Your task to perform on an android device: change keyboard looks Image 0: 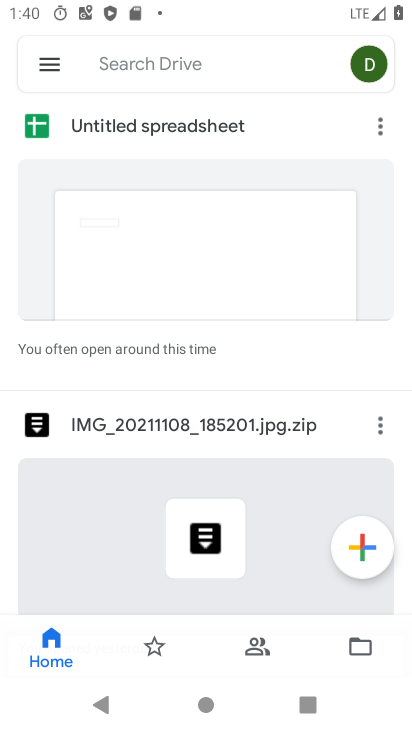
Step 0: press home button
Your task to perform on an android device: change keyboard looks Image 1: 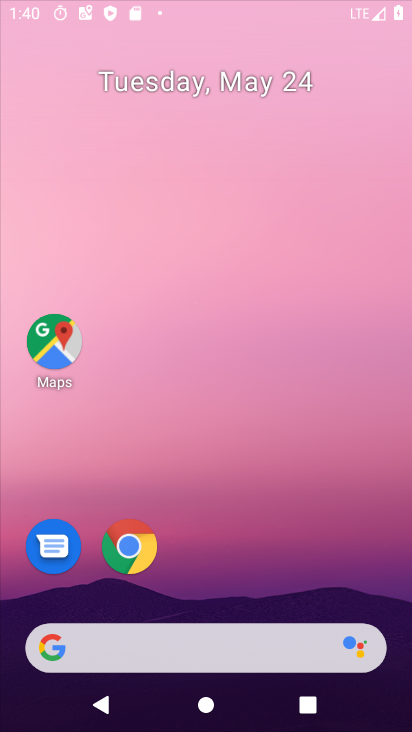
Step 1: drag from (205, 513) to (342, 51)
Your task to perform on an android device: change keyboard looks Image 2: 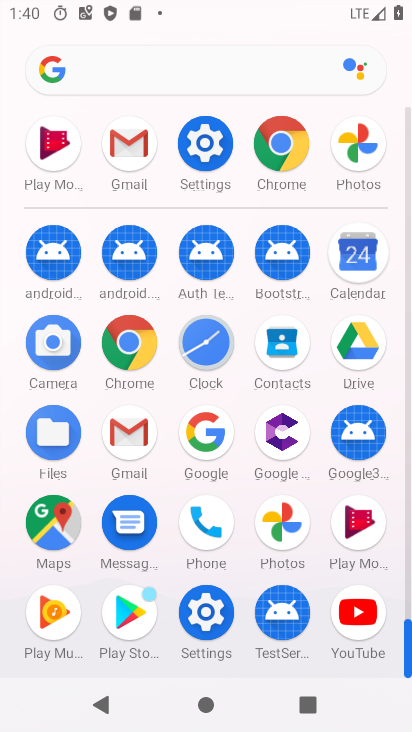
Step 2: click (200, 620)
Your task to perform on an android device: change keyboard looks Image 3: 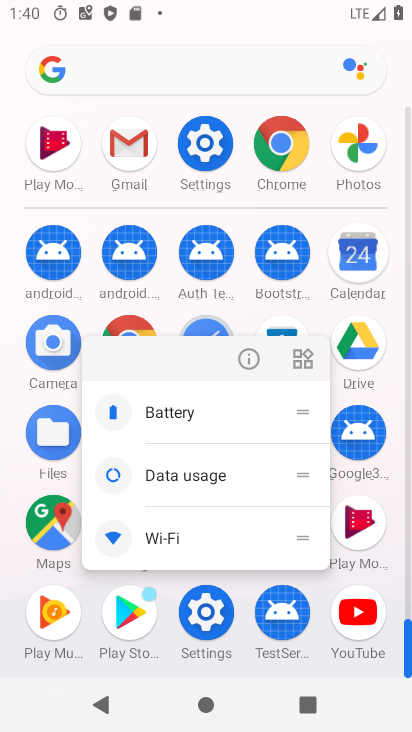
Step 3: click (253, 349)
Your task to perform on an android device: change keyboard looks Image 4: 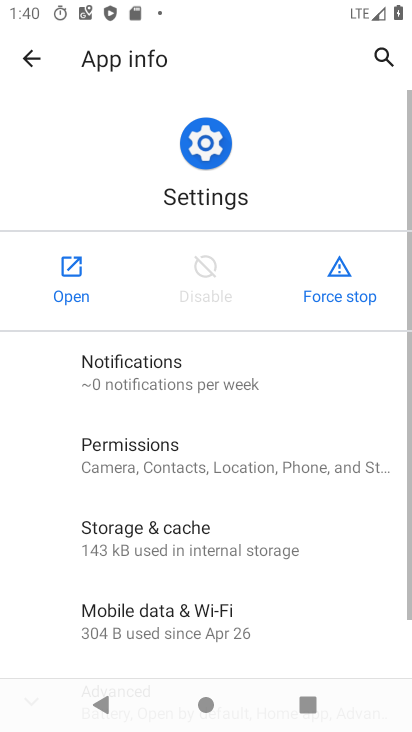
Step 4: click (64, 271)
Your task to perform on an android device: change keyboard looks Image 5: 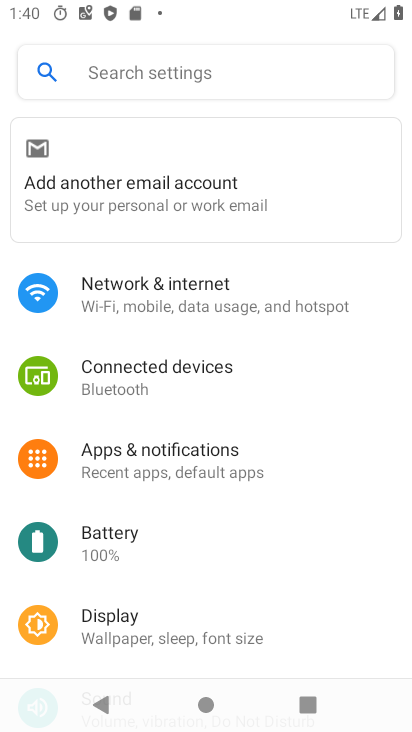
Step 5: drag from (190, 602) to (302, 0)
Your task to perform on an android device: change keyboard looks Image 6: 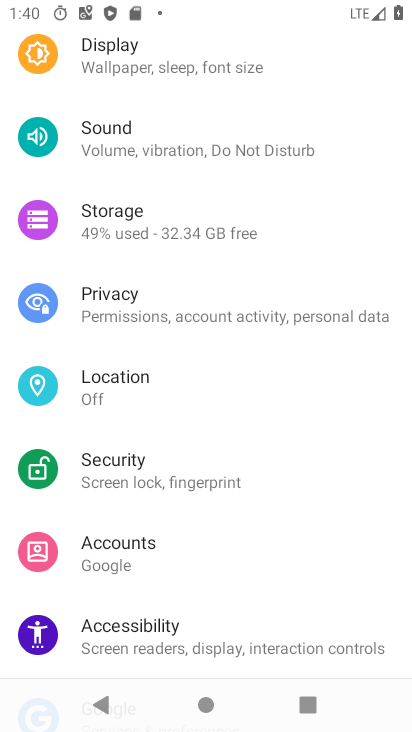
Step 6: drag from (202, 561) to (360, 0)
Your task to perform on an android device: change keyboard looks Image 7: 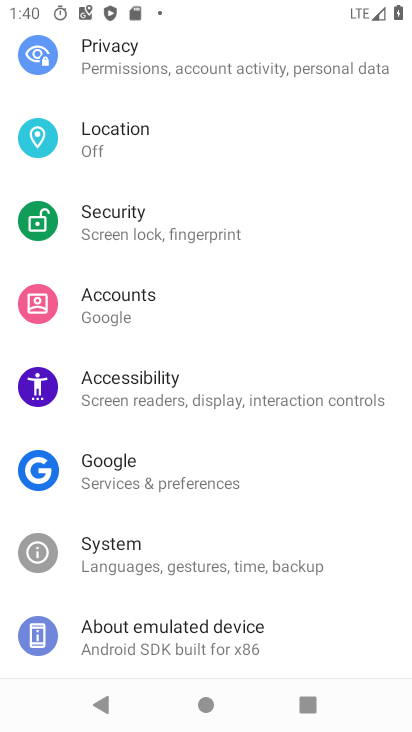
Step 7: drag from (208, 602) to (289, 86)
Your task to perform on an android device: change keyboard looks Image 8: 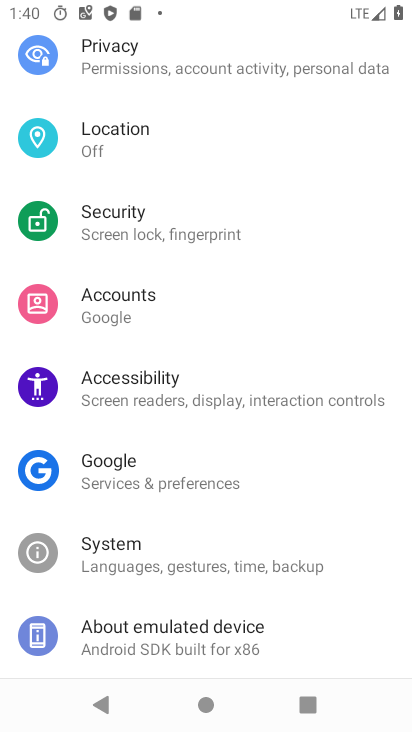
Step 8: click (183, 547)
Your task to perform on an android device: change keyboard looks Image 9: 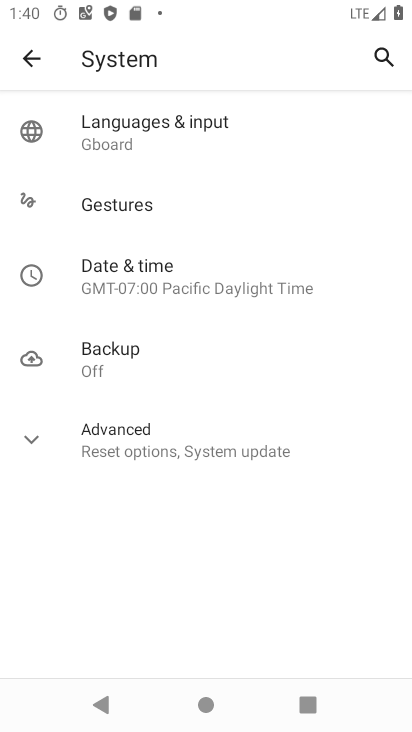
Step 9: drag from (186, 538) to (308, 133)
Your task to perform on an android device: change keyboard looks Image 10: 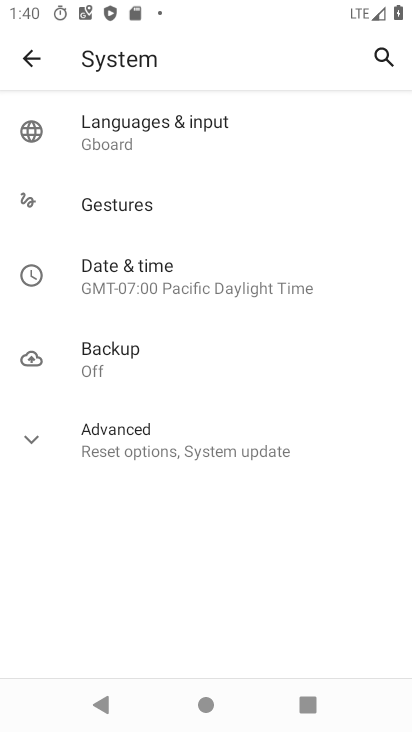
Step 10: click (210, 143)
Your task to perform on an android device: change keyboard looks Image 11: 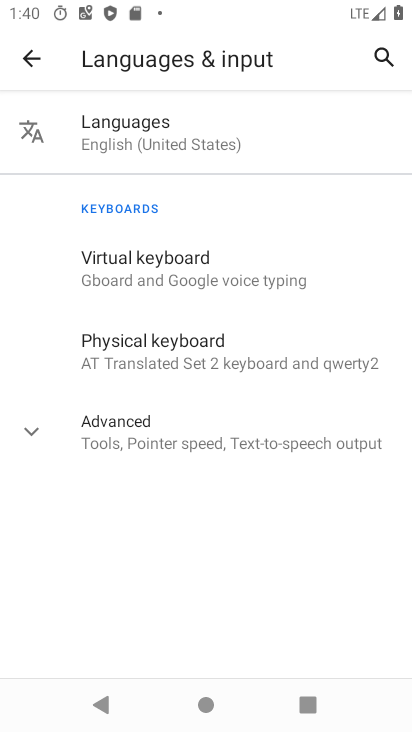
Step 11: click (157, 271)
Your task to perform on an android device: change keyboard looks Image 12: 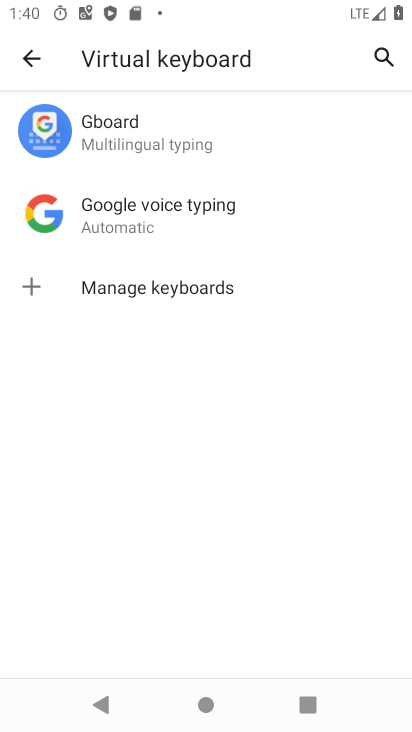
Step 12: click (244, 131)
Your task to perform on an android device: change keyboard looks Image 13: 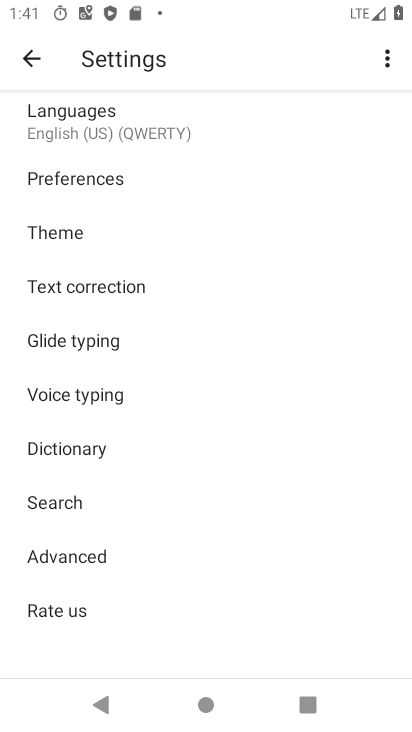
Step 13: click (104, 229)
Your task to perform on an android device: change keyboard looks Image 14: 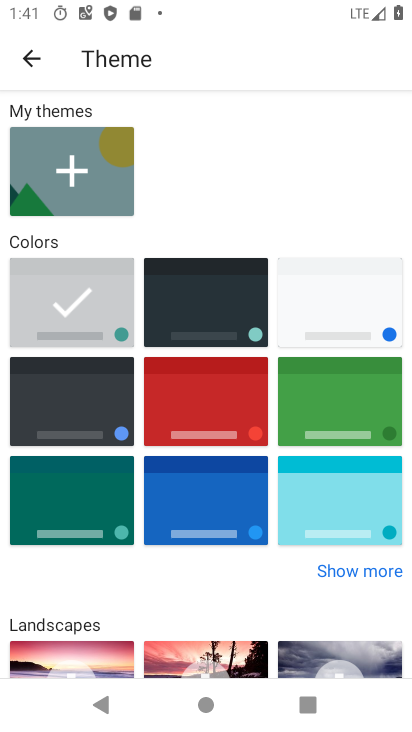
Step 14: click (74, 378)
Your task to perform on an android device: change keyboard looks Image 15: 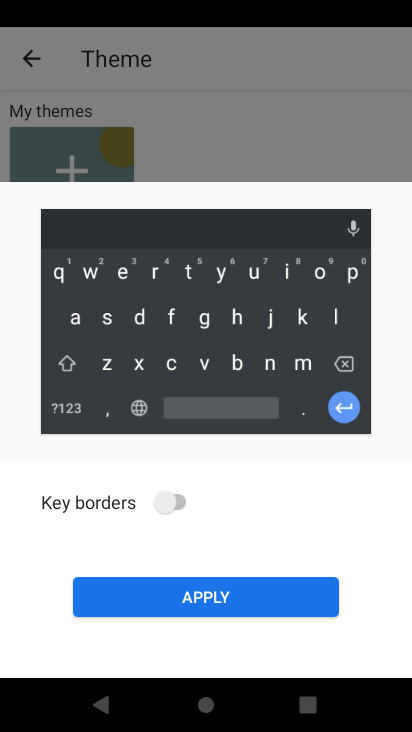
Step 15: click (154, 599)
Your task to perform on an android device: change keyboard looks Image 16: 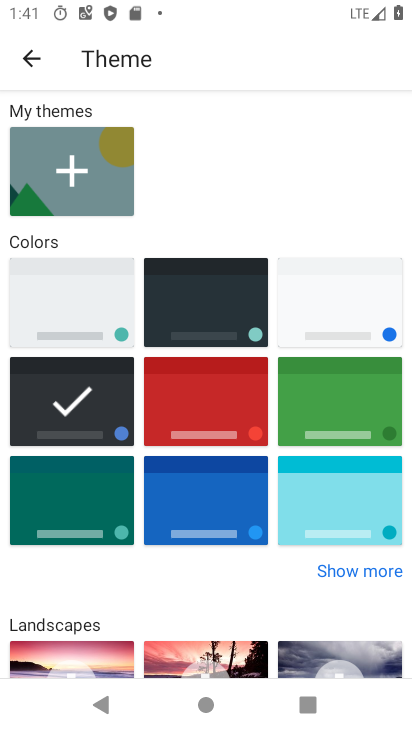
Step 16: task complete